Your task to perform on an android device: Go to display settings Image 0: 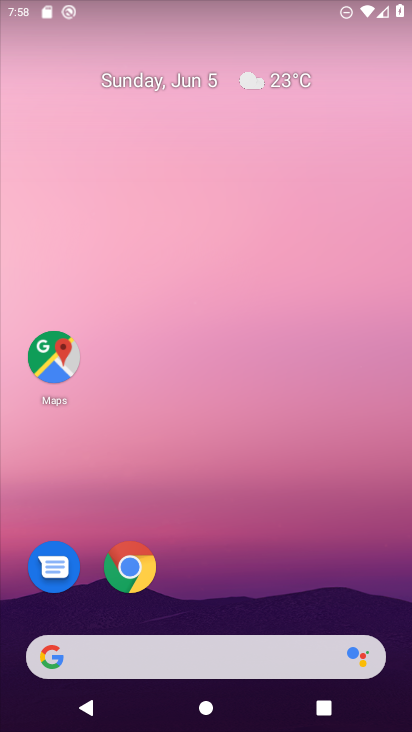
Step 0: drag from (396, 629) to (297, 1)
Your task to perform on an android device: Go to display settings Image 1: 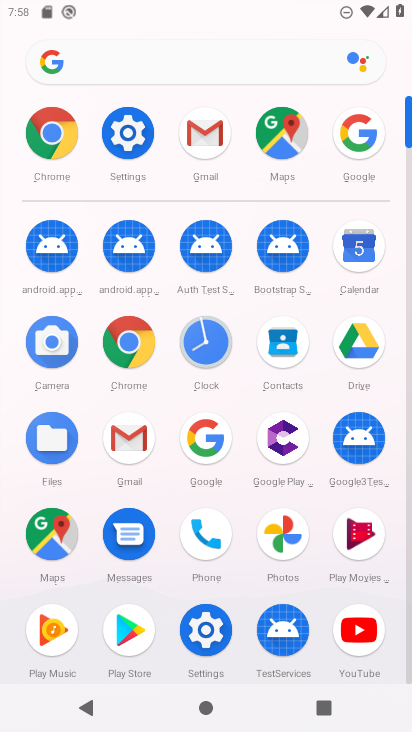
Step 1: click (131, 138)
Your task to perform on an android device: Go to display settings Image 2: 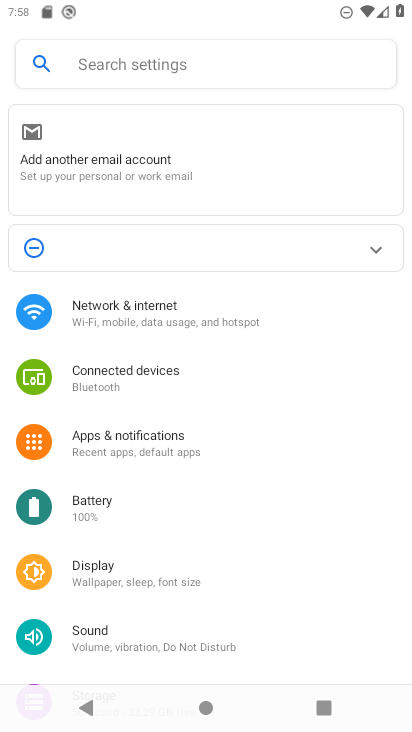
Step 2: click (123, 567)
Your task to perform on an android device: Go to display settings Image 3: 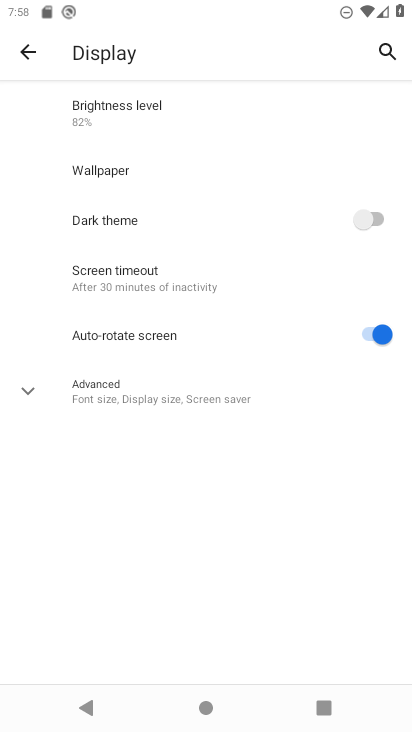
Step 3: task complete